Your task to perform on an android device: What's the weather? Image 0: 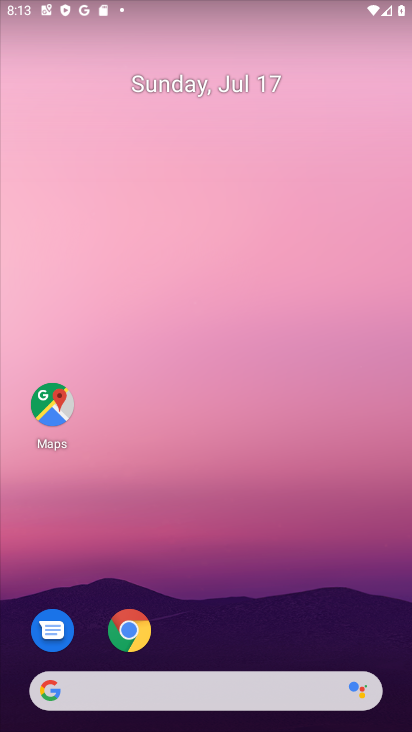
Step 0: drag from (187, 644) to (225, 123)
Your task to perform on an android device: What's the weather? Image 1: 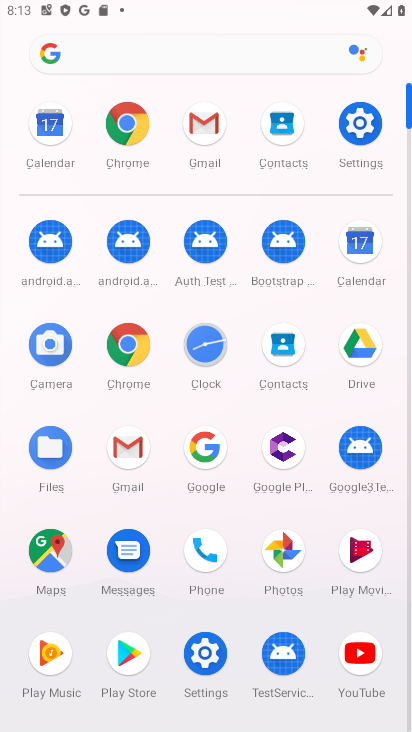
Step 1: drag from (200, 645) to (165, 196)
Your task to perform on an android device: What's the weather? Image 2: 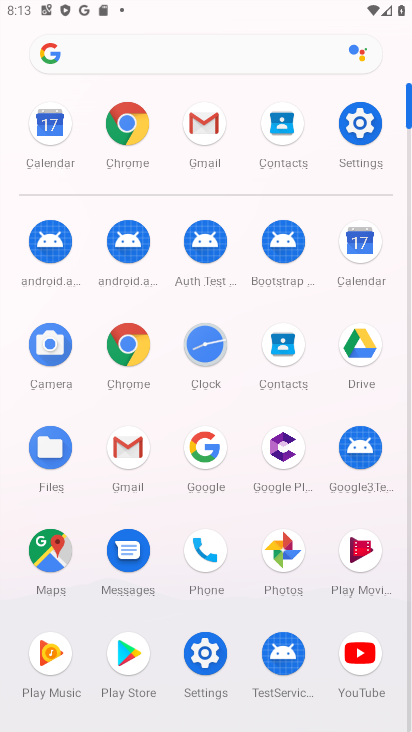
Step 2: click (193, 464)
Your task to perform on an android device: What's the weather? Image 3: 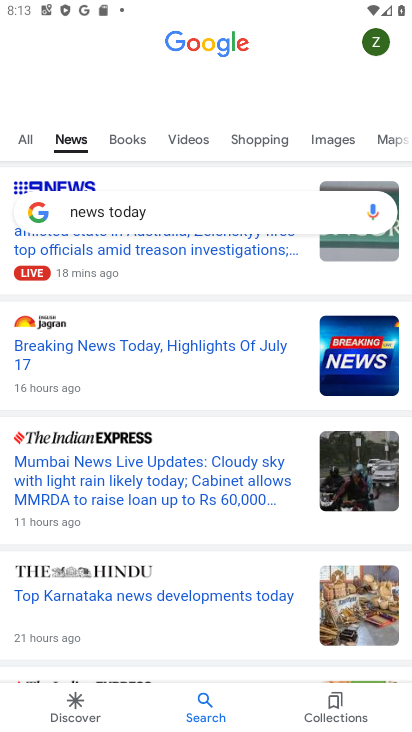
Step 3: click (160, 210)
Your task to perform on an android device: What's the weather? Image 4: 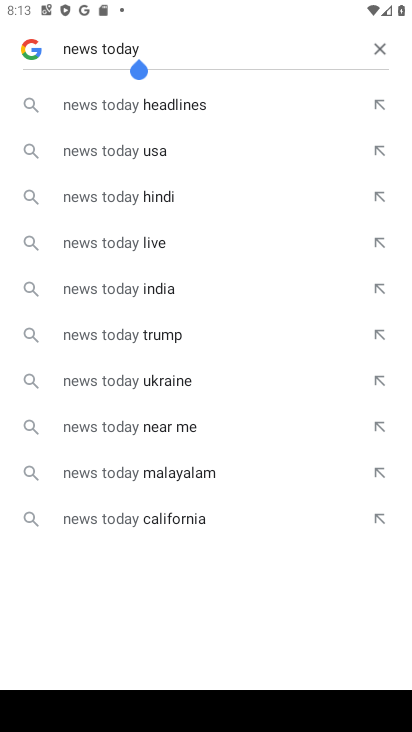
Step 4: click (376, 42)
Your task to perform on an android device: What's the weather? Image 5: 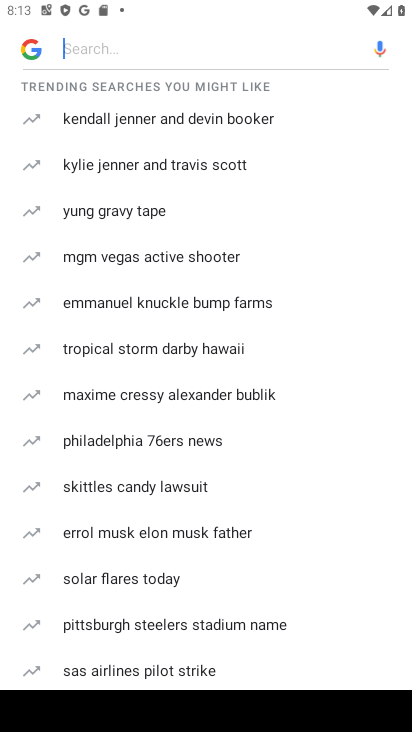
Step 5: type "wheather"
Your task to perform on an android device: What's the weather? Image 6: 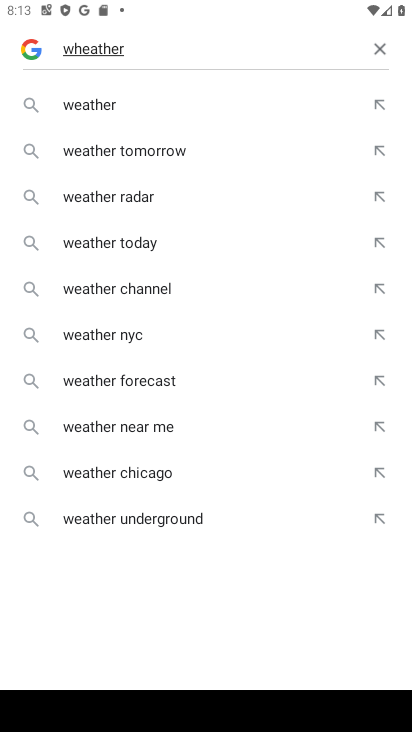
Step 6: click (88, 108)
Your task to perform on an android device: What's the weather? Image 7: 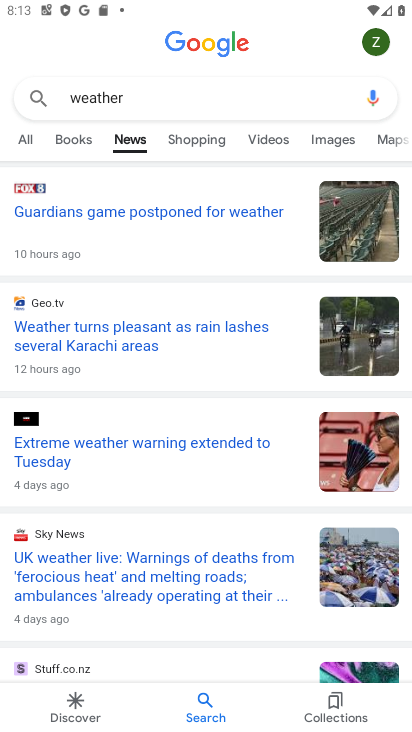
Step 7: task complete